Your task to perform on an android device: Open the stopwatch Image 0: 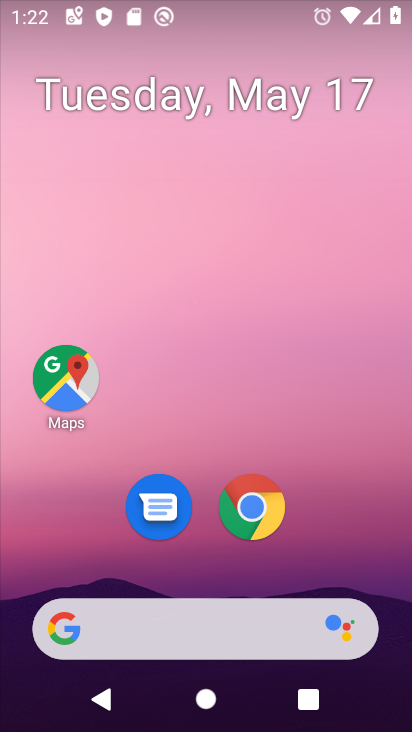
Step 0: drag from (310, 554) to (315, 260)
Your task to perform on an android device: Open the stopwatch Image 1: 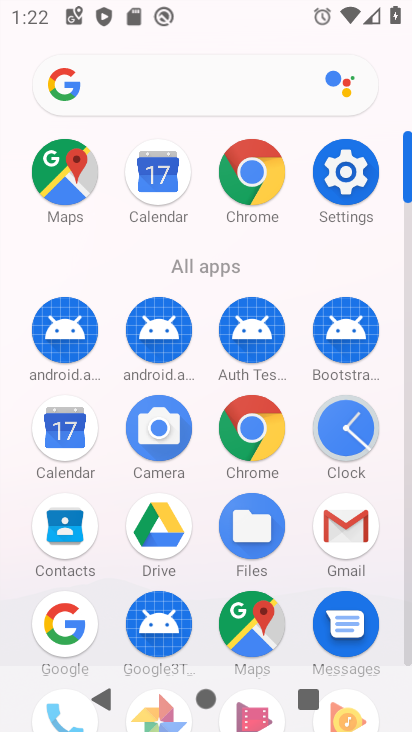
Step 1: click (344, 421)
Your task to perform on an android device: Open the stopwatch Image 2: 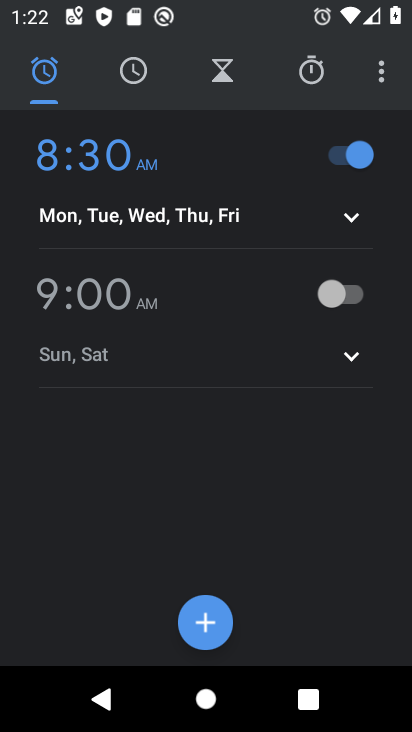
Step 2: click (303, 67)
Your task to perform on an android device: Open the stopwatch Image 3: 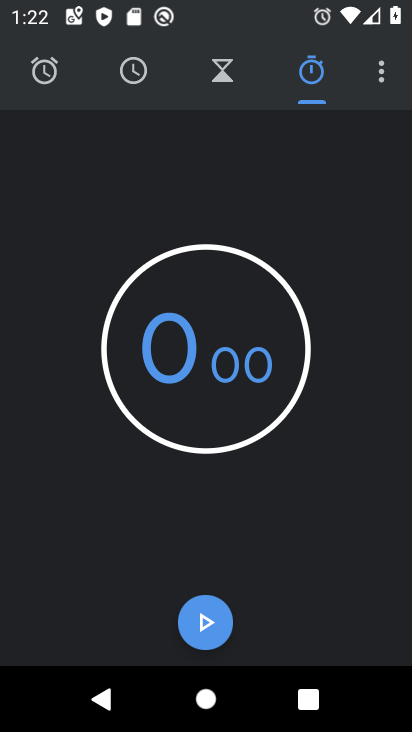
Step 3: task complete